Your task to perform on an android device: turn off improve location accuracy Image 0: 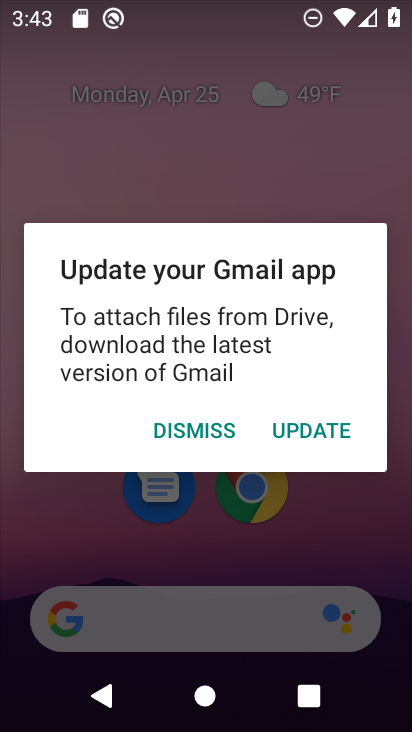
Step 0: press home button
Your task to perform on an android device: turn off improve location accuracy Image 1: 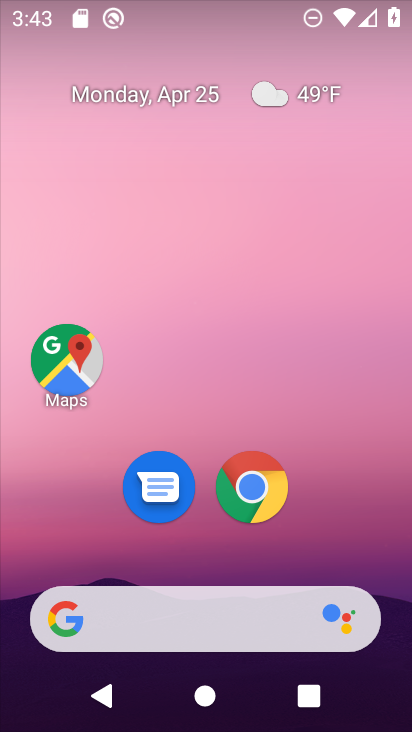
Step 1: drag from (342, 559) to (283, 5)
Your task to perform on an android device: turn off improve location accuracy Image 2: 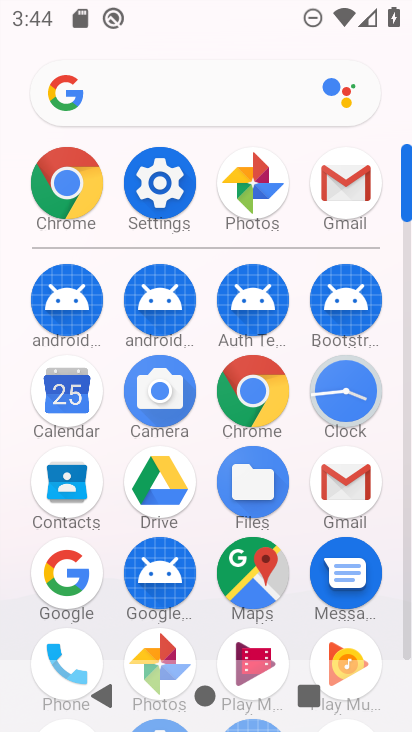
Step 2: click (161, 186)
Your task to perform on an android device: turn off improve location accuracy Image 3: 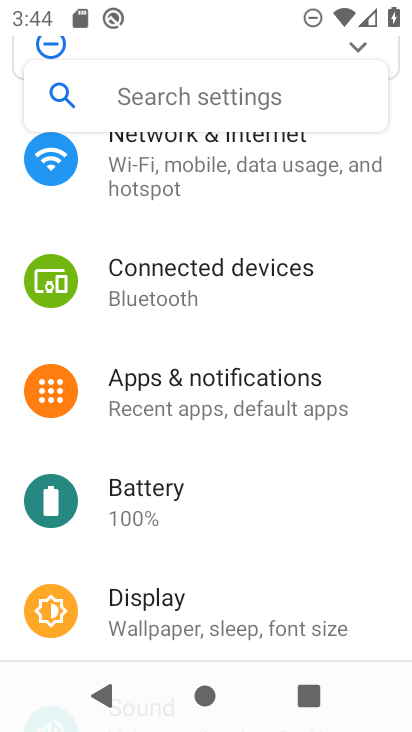
Step 3: drag from (334, 572) to (296, 231)
Your task to perform on an android device: turn off improve location accuracy Image 4: 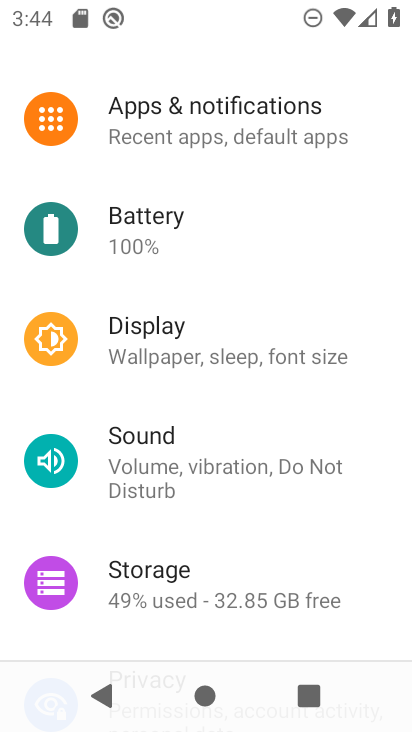
Step 4: drag from (357, 478) to (310, 121)
Your task to perform on an android device: turn off improve location accuracy Image 5: 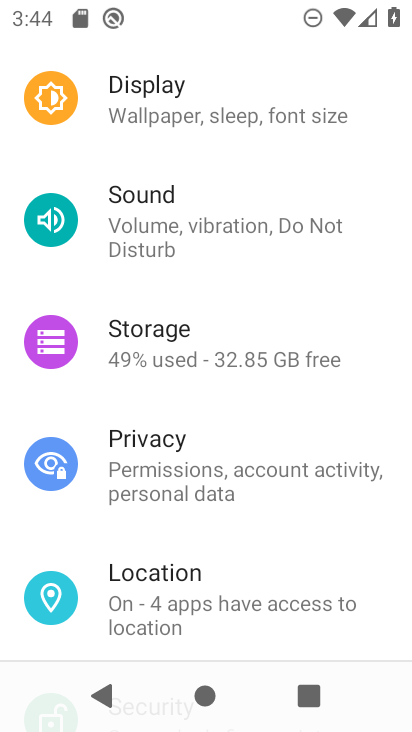
Step 5: click (164, 583)
Your task to perform on an android device: turn off improve location accuracy Image 6: 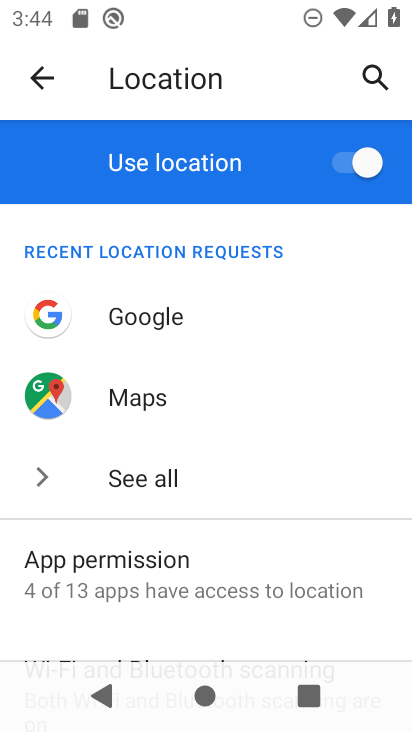
Step 6: drag from (220, 553) to (193, 132)
Your task to perform on an android device: turn off improve location accuracy Image 7: 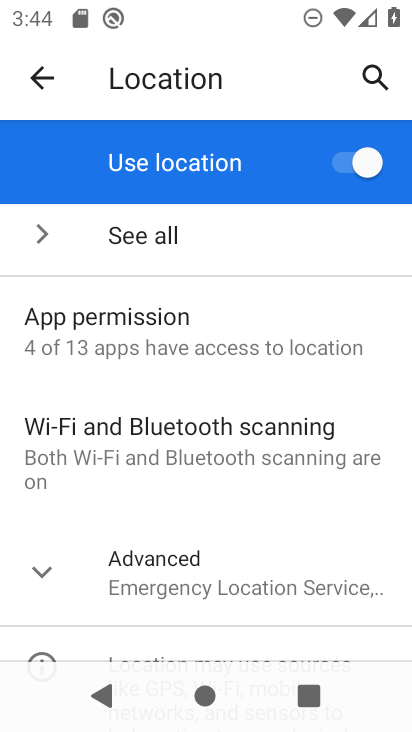
Step 7: drag from (115, 578) to (118, 225)
Your task to perform on an android device: turn off improve location accuracy Image 8: 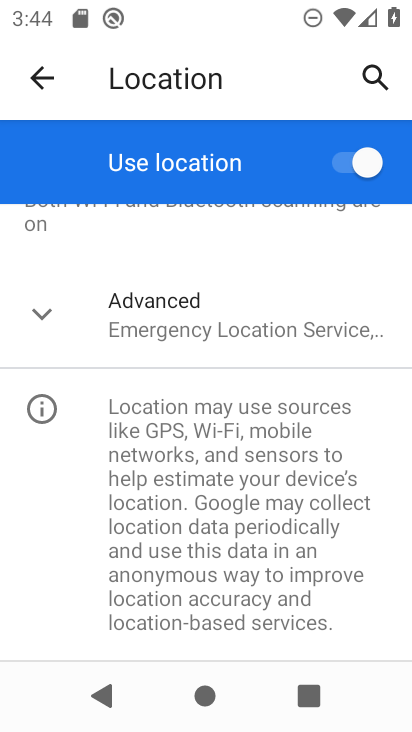
Step 8: click (35, 320)
Your task to perform on an android device: turn off improve location accuracy Image 9: 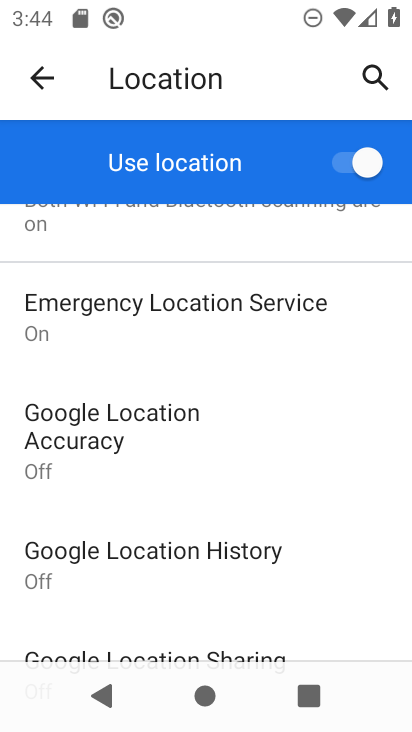
Step 9: click (86, 442)
Your task to perform on an android device: turn off improve location accuracy Image 10: 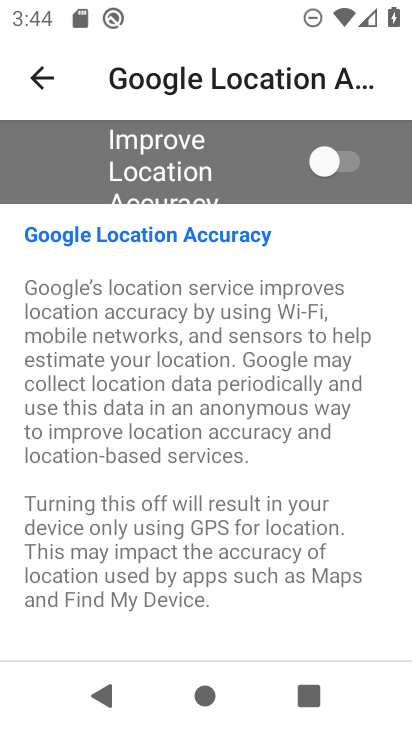
Step 10: task complete